Your task to perform on an android device: Open location settings Image 0: 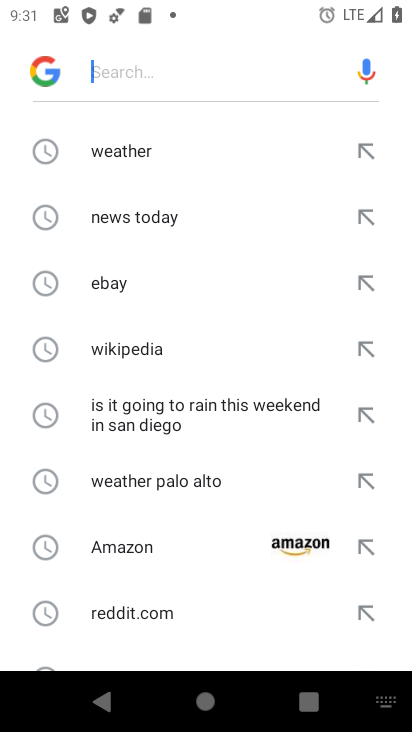
Step 0: press home button
Your task to perform on an android device: Open location settings Image 1: 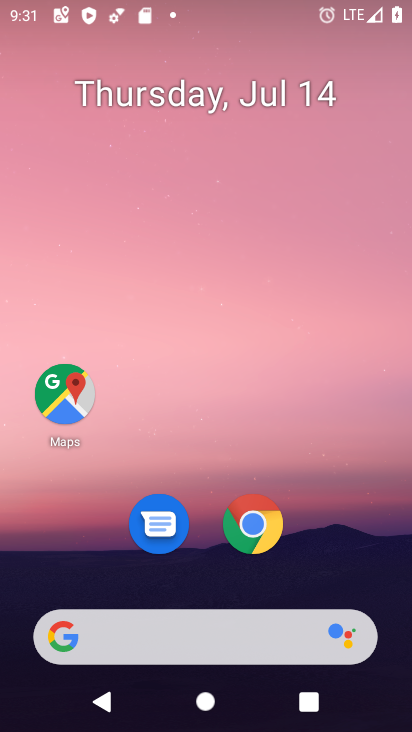
Step 1: drag from (222, 447) to (256, 0)
Your task to perform on an android device: Open location settings Image 2: 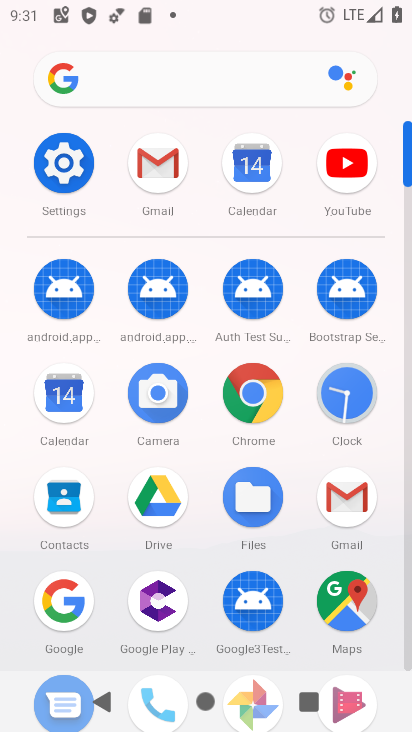
Step 2: click (74, 156)
Your task to perform on an android device: Open location settings Image 3: 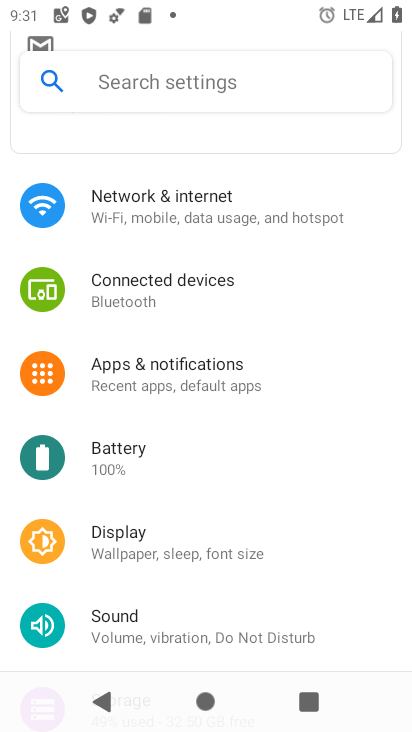
Step 3: drag from (199, 457) to (287, 74)
Your task to perform on an android device: Open location settings Image 4: 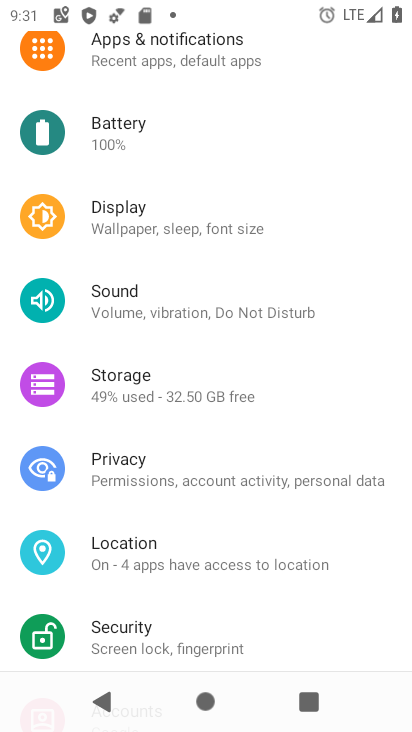
Step 4: click (173, 554)
Your task to perform on an android device: Open location settings Image 5: 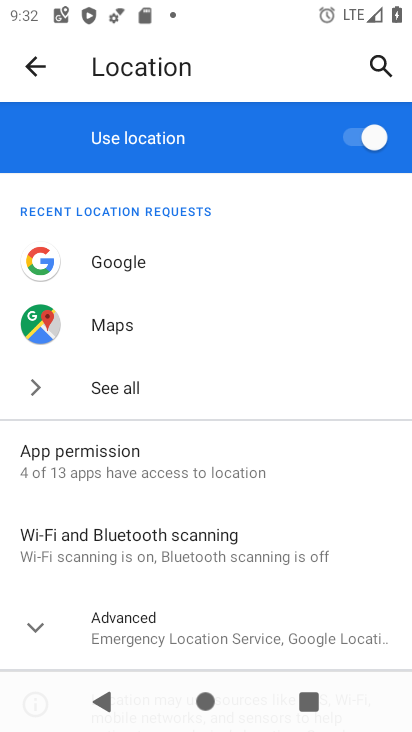
Step 5: task complete